Your task to perform on an android device: toggle priority inbox in the gmail app Image 0: 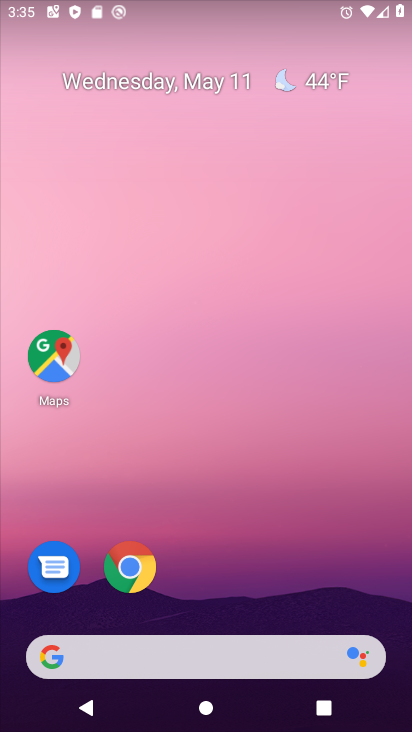
Step 0: drag from (273, 579) to (262, 54)
Your task to perform on an android device: toggle priority inbox in the gmail app Image 1: 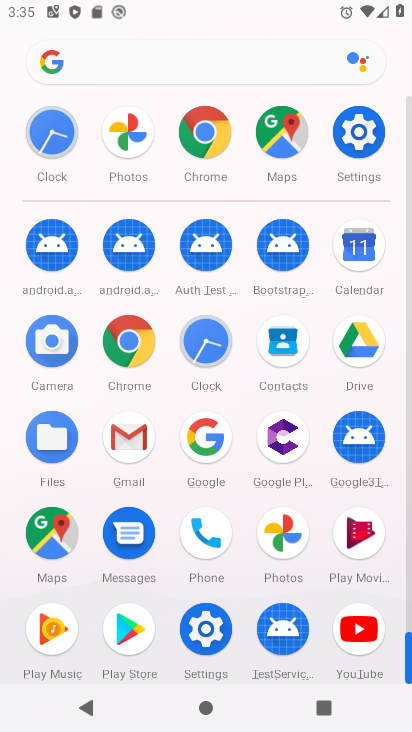
Step 1: click (130, 430)
Your task to perform on an android device: toggle priority inbox in the gmail app Image 2: 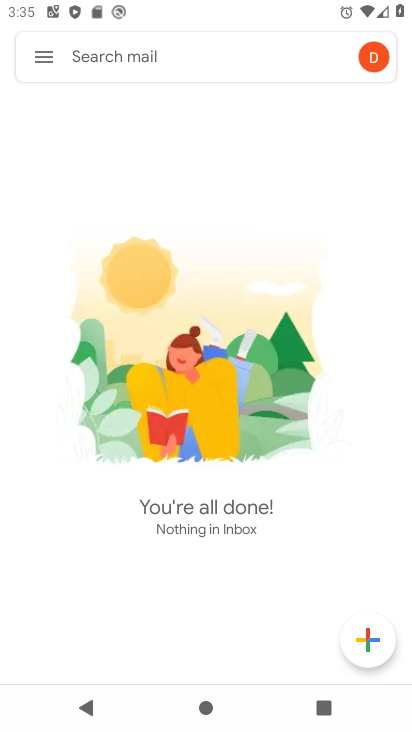
Step 2: click (47, 54)
Your task to perform on an android device: toggle priority inbox in the gmail app Image 3: 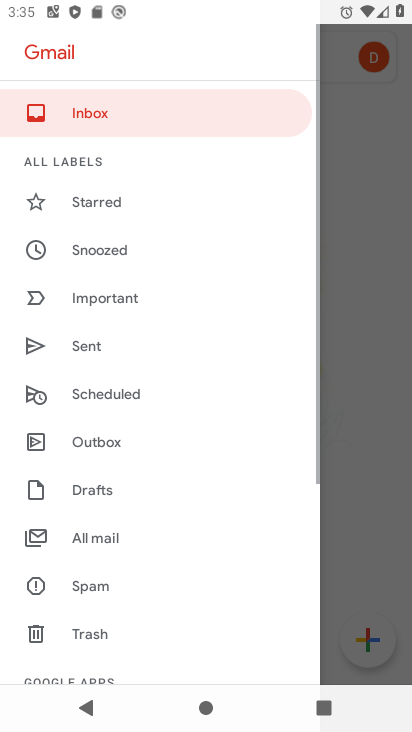
Step 3: drag from (118, 570) to (151, 126)
Your task to perform on an android device: toggle priority inbox in the gmail app Image 4: 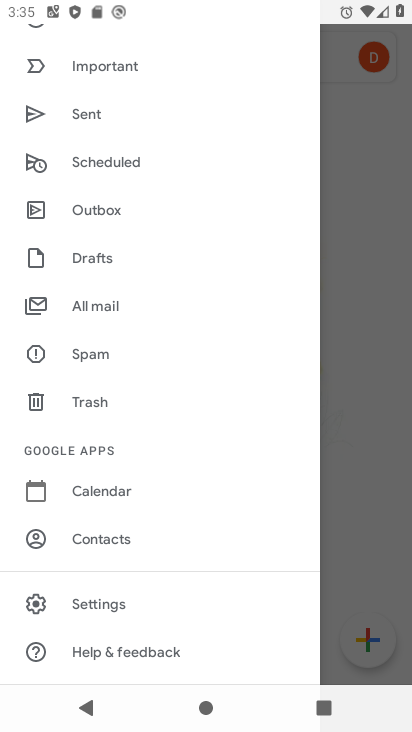
Step 4: click (104, 600)
Your task to perform on an android device: toggle priority inbox in the gmail app Image 5: 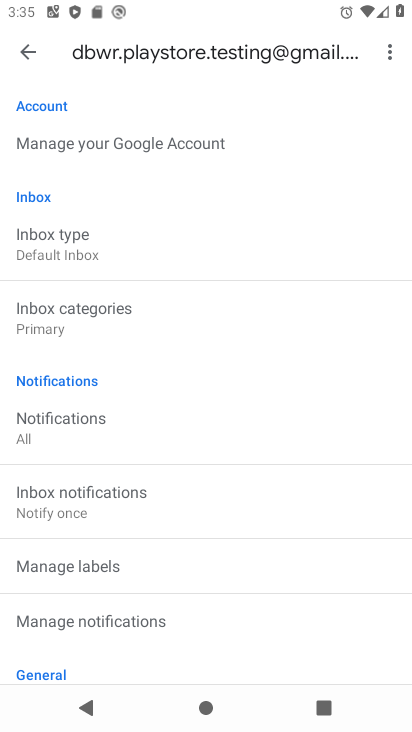
Step 5: click (114, 248)
Your task to perform on an android device: toggle priority inbox in the gmail app Image 6: 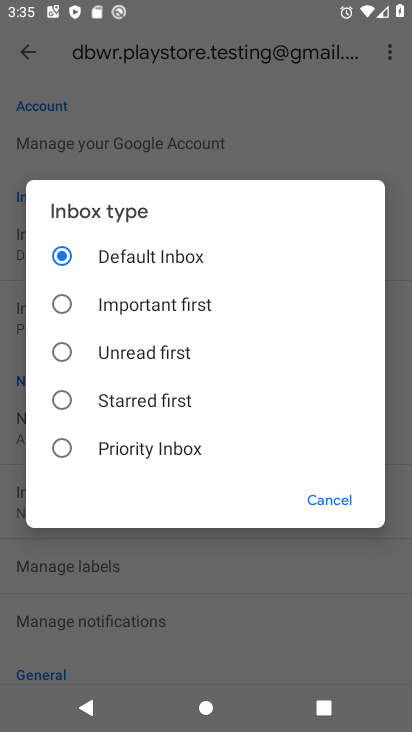
Step 6: click (100, 452)
Your task to perform on an android device: toggle priority inbox in the gmail app Image 7: 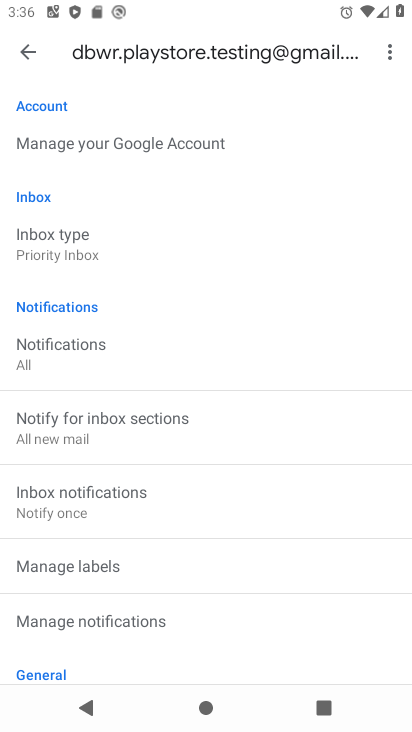
Step 7: task complete